Your task to perform on an android device: Is it going to rain today? Image 0: 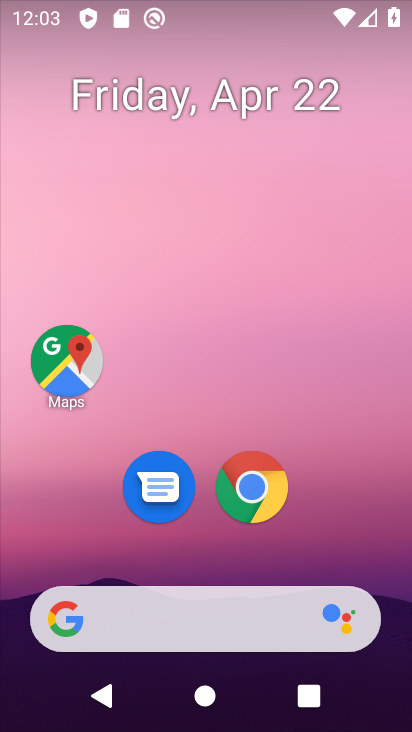
Step 0: drag from (235, 459) to (276, 68)
Your task to perform on an android device: Is it going to rain today? Image 1: 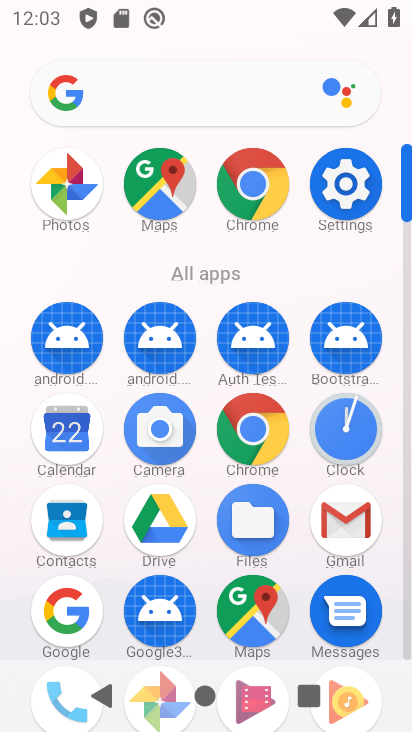
Step 1: click (82, 591)
Your task to perform on an android device: Is it going to rain today? Image 2: 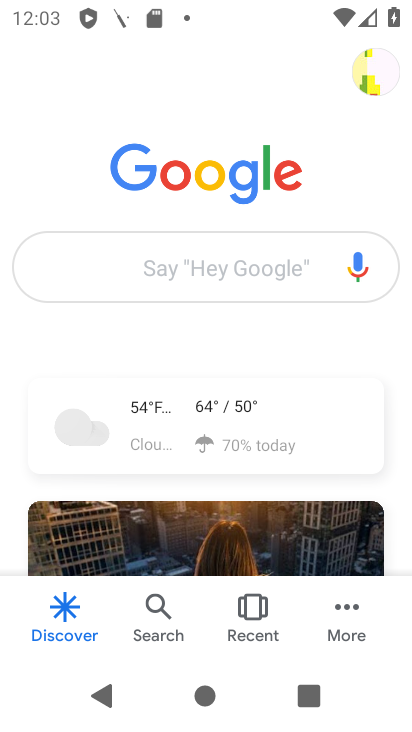
Step 2: click (137, 413)
Your task to perform on an android device: Is it going to rain today? Image 3: 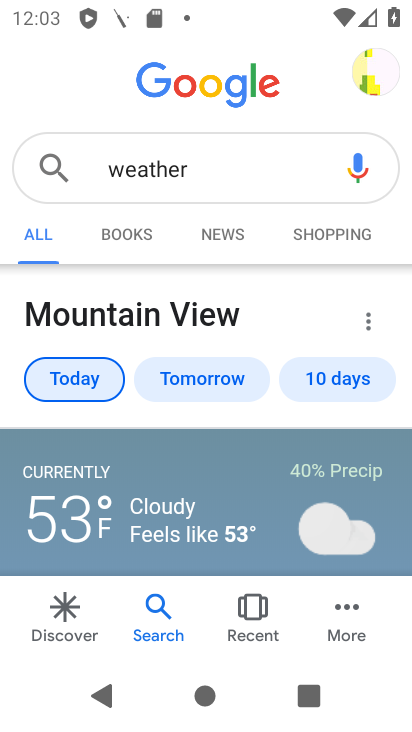
Step 3: task complete